Your task to perform on an android device: add a label to a message in the gmail app Image 0: 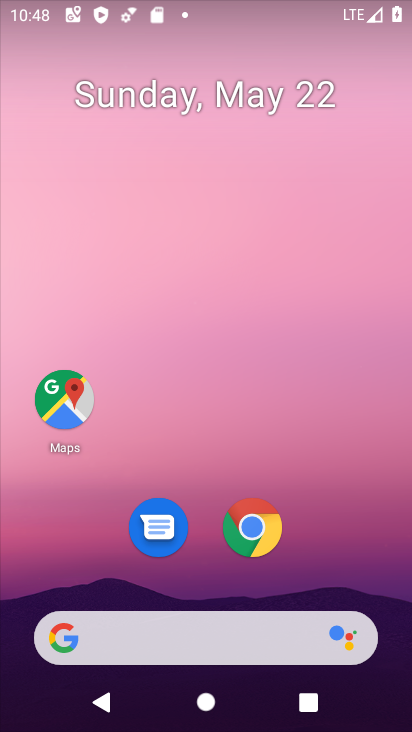
Step 0: drag from (357, 569) to (263, 86)
Your task to perform on an android device: add a label to a message in the gmail app Image 1: 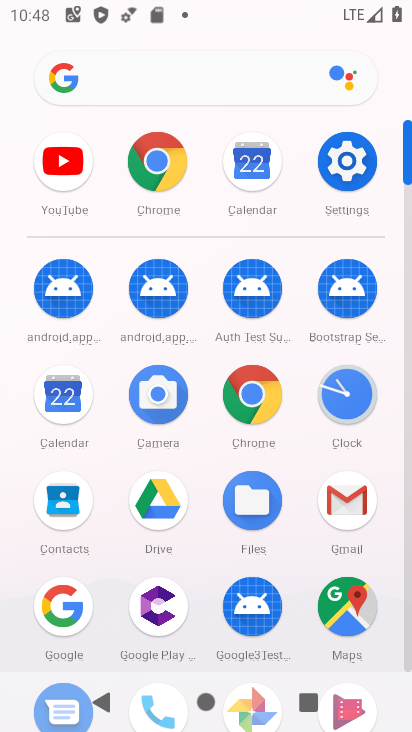
Step 1: click (361, 547)
Your task to perform on an android device: add a label to a message in the gmail app Image 2: 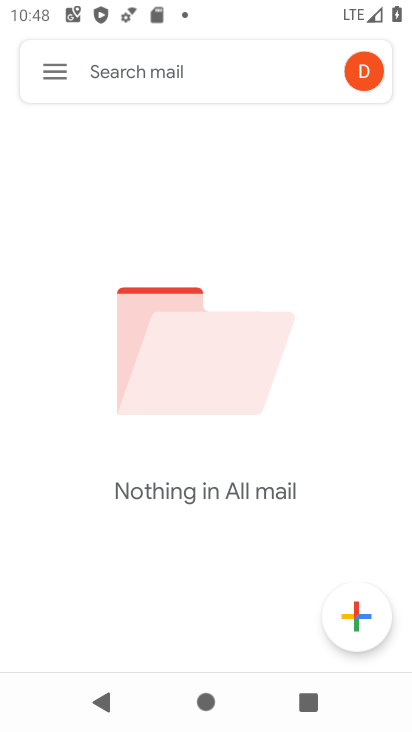
Step 2: click (45, 68)
Your task to perform on an android device: add a label to a message in the gmail app Image 3: 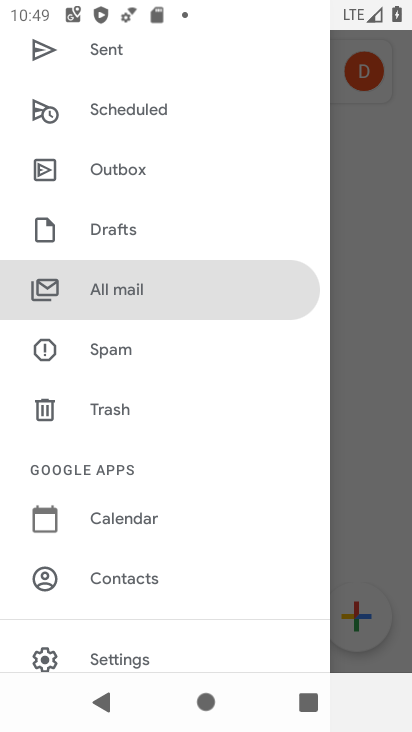
Step 3: click (132, 289)
Your task to perform on an android device: add a label to a message in the gmail app Image 4: 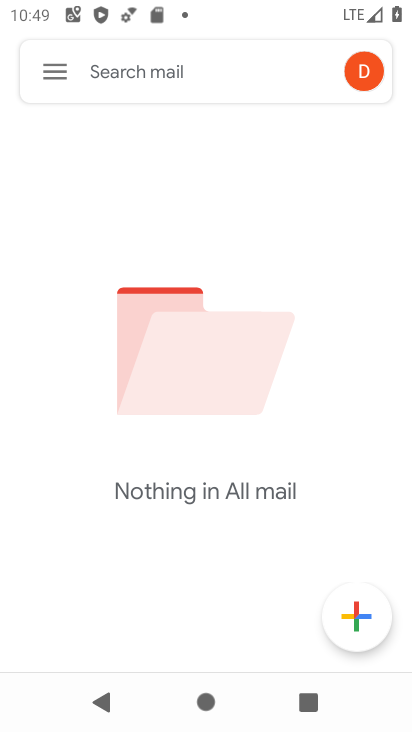
Step 4: task complete